Your task to perform on an android device: Open Android settings Image 0: 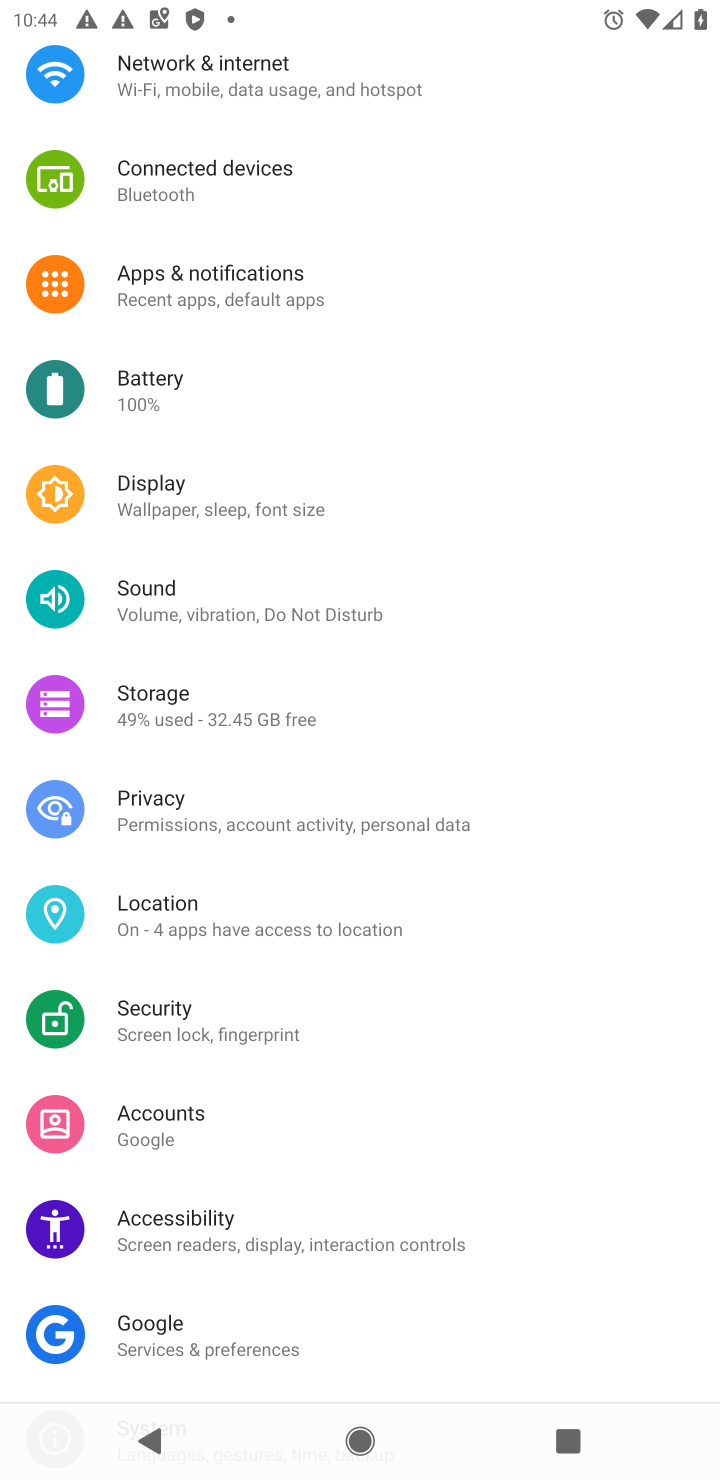
Step 0: drag from (362, 1138) to (569, 172)
Your task to perform on an android device: Open Android settings Image 1: 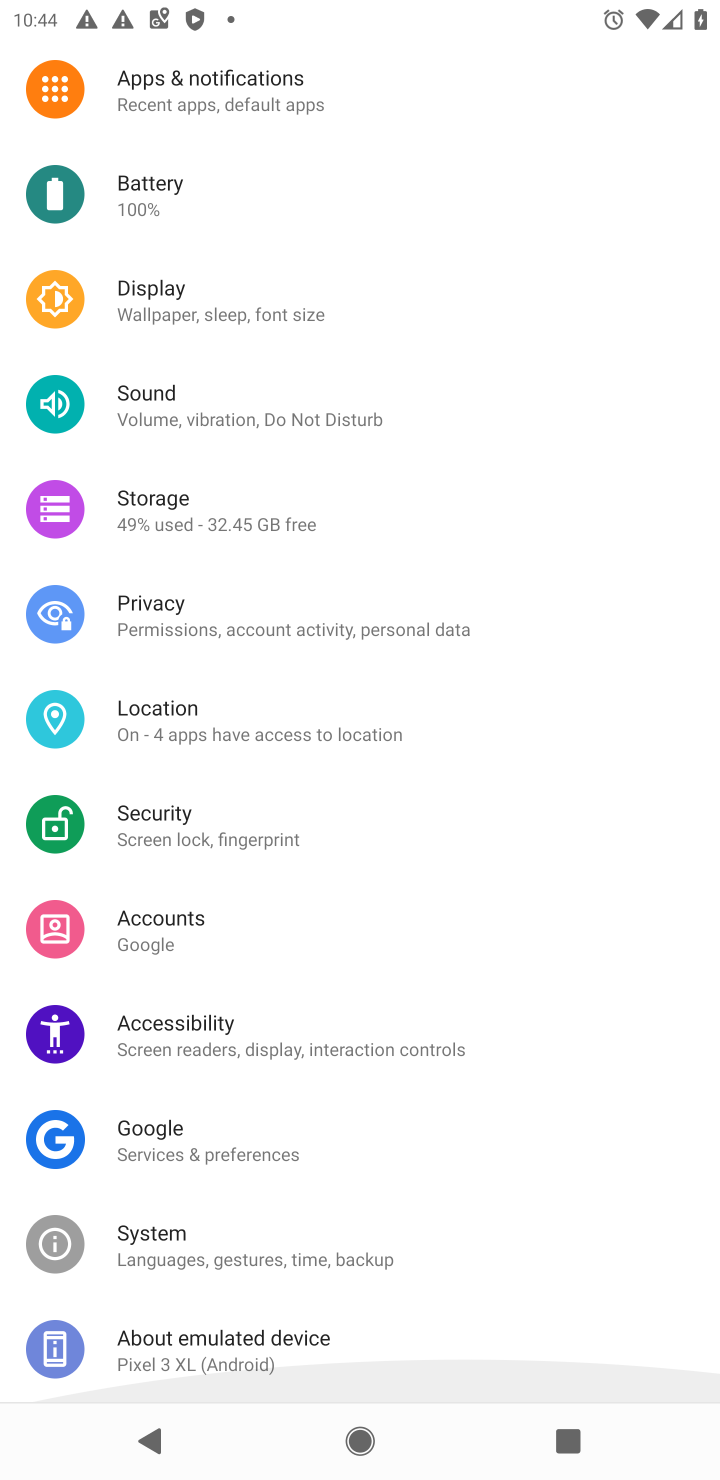
Step 1: task complete